Your task to perform on an android device: find which apps use the phone's location Image 0: 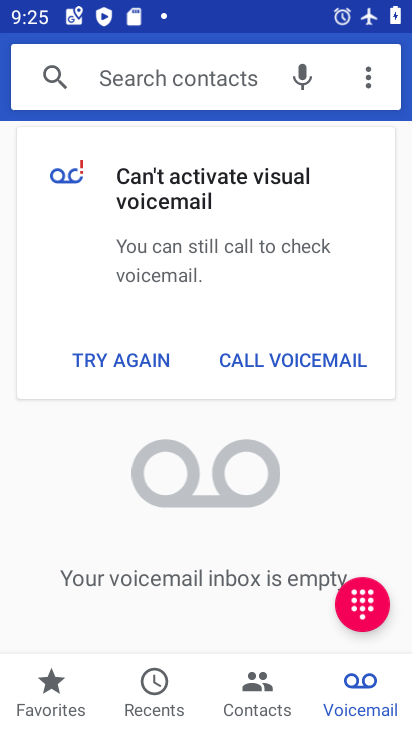
Step 0: press home button
Your task to perform on an android device: find which apps use the phone's location Image 1: 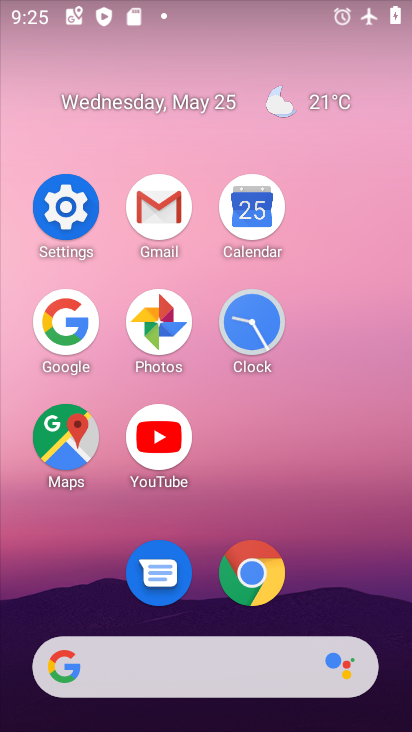
Step 1: click (67, 226)
Your task to perform on an android device: find which apps use the phone's location Image 2: 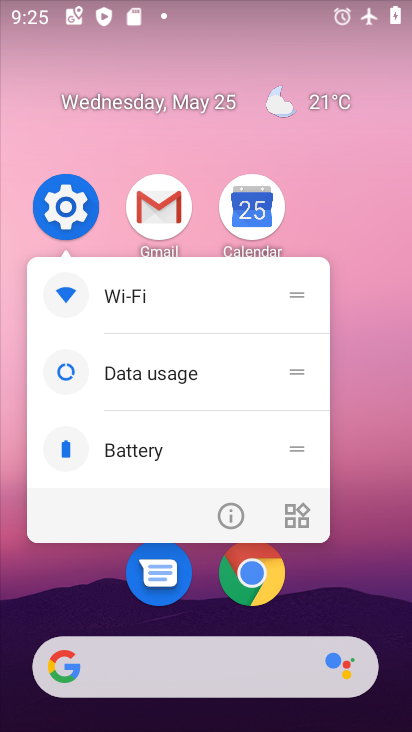
Step 2: click (58, 206)
Your task to perform on an android device: find which apps use the phone's location Image 3: 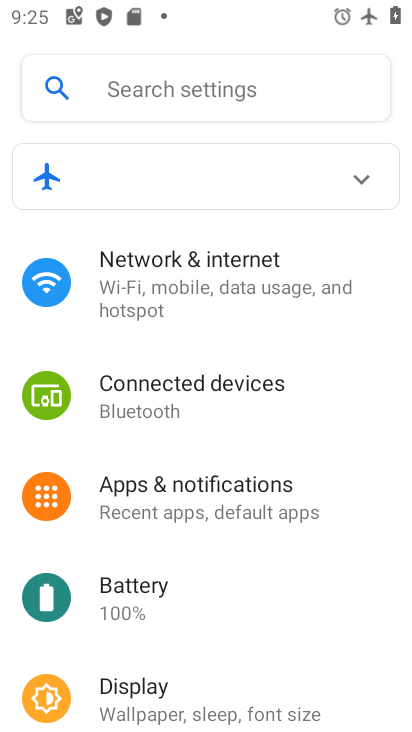
Step 3: drag from (330, 564) to (279, 224)
Your task to perform on an android device: find which apps use the phone's location Image 4: 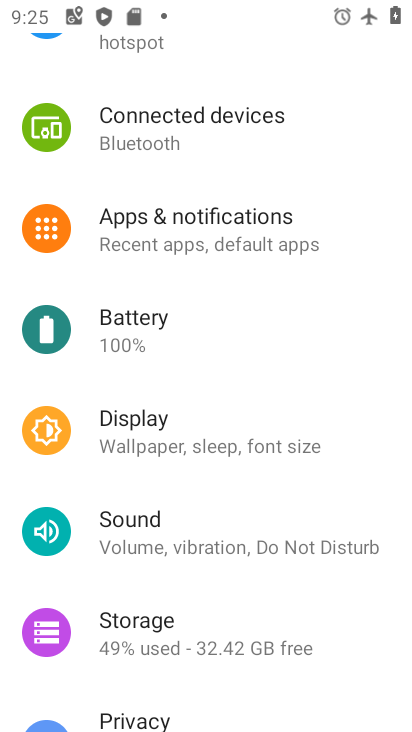
Step 4: drag from (294, 540) to (253, 223)
Your task to perform on an android device: find which apps use the phone's location Image 5: 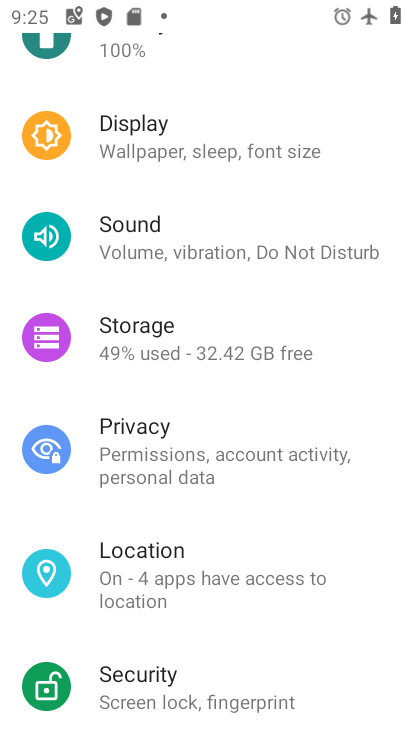
Step 5: drag from (242, 483) to (233, 170)
Your task to perform on an android device: find which apps use the phone's location Image 6: 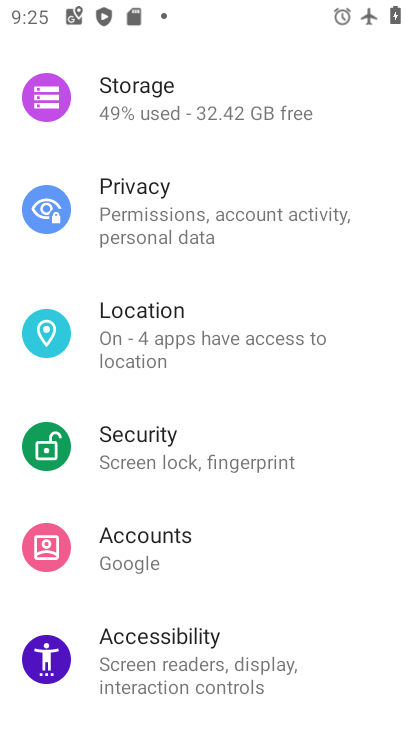
Step 6: click (235, 340)
Your task to perform on an android device: find which apps use the phone's location Image 7: 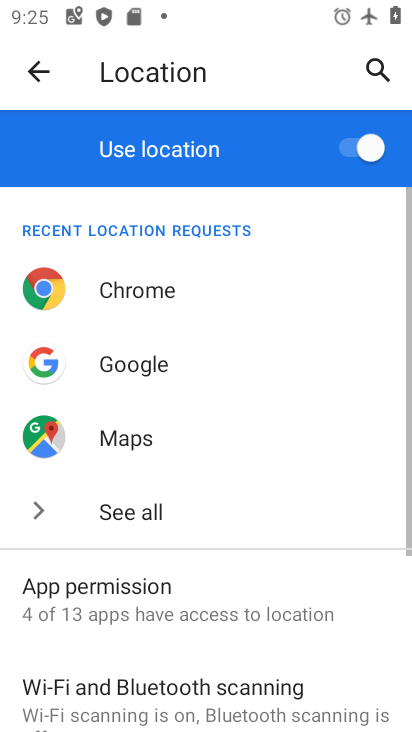
Step 7: task complete